Your task to perform on an android device: What is the recent news? Image 0: 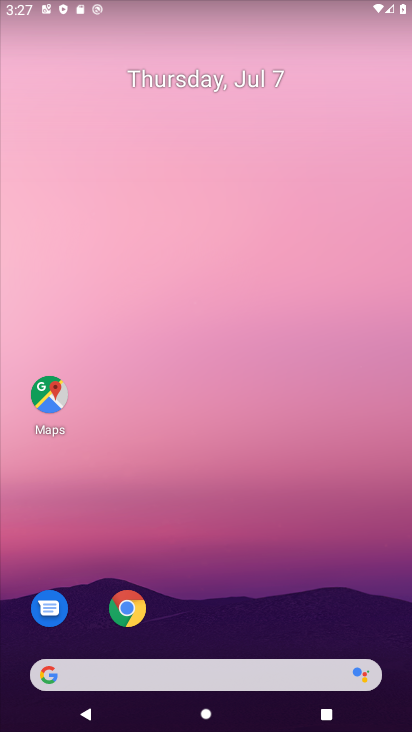
Step 0: drag from (12, 281) to (411, 276)
Your task to perform on an android device: What is the recent news? Image 1: 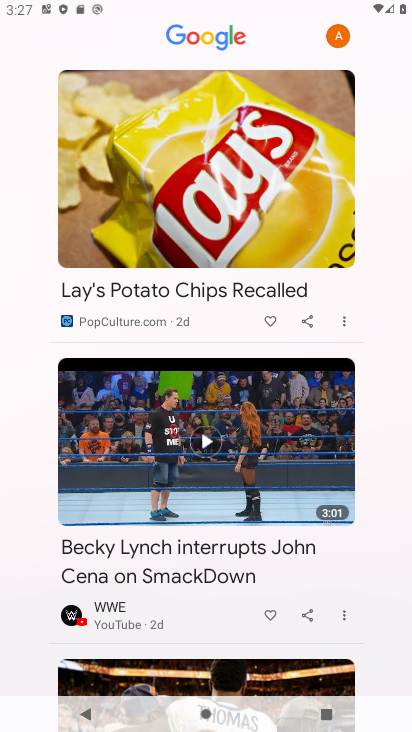
Step 1: task complete